Your task to perform on an android device: Go to internet settings Image 0: 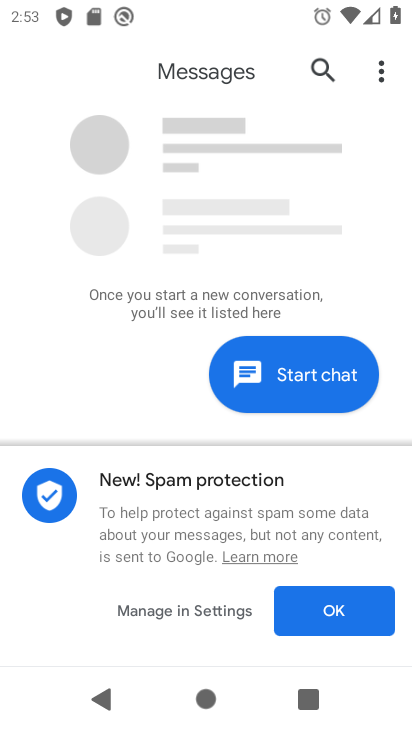
Step 0: press home button
Your task to perform on an android device: Go to internet settings Image 1: 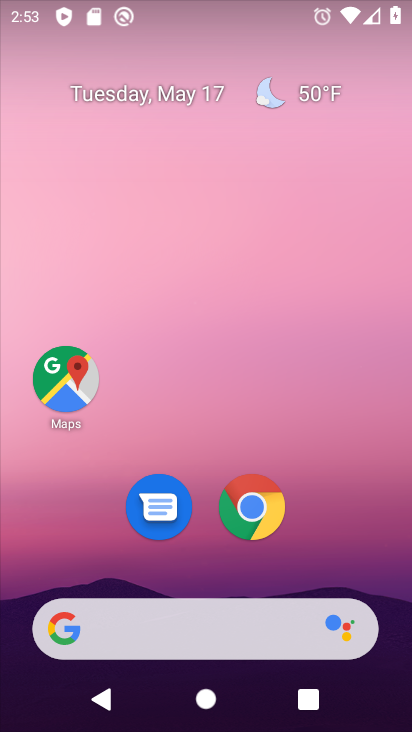
Step 1: drag from (377, 561) to (243, 59)
Your task to perform on an android device: Go to internet settings Image 2: 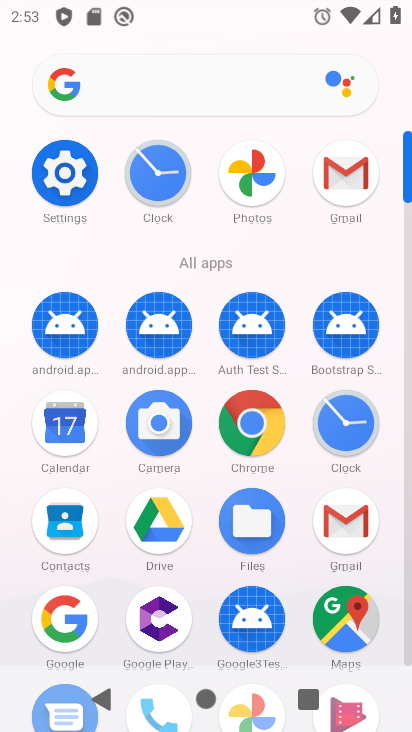
Step 2: click (68, 165)
Your task to perform on an android device: Go to internet settings Image 3: 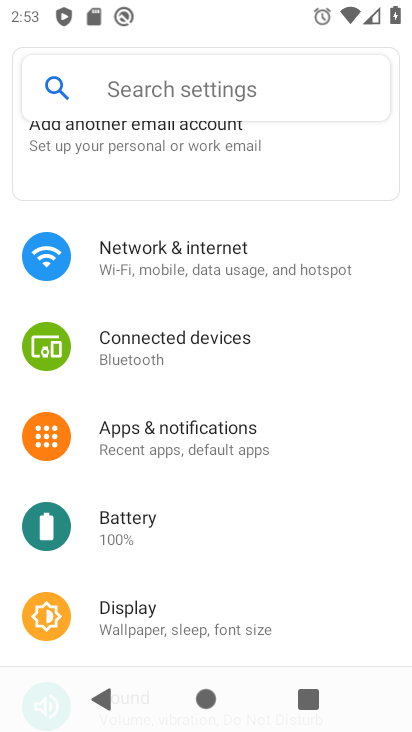
Step 3: click (198, 256)
Your task to perform on an android device: Go to internet settings Image 4: 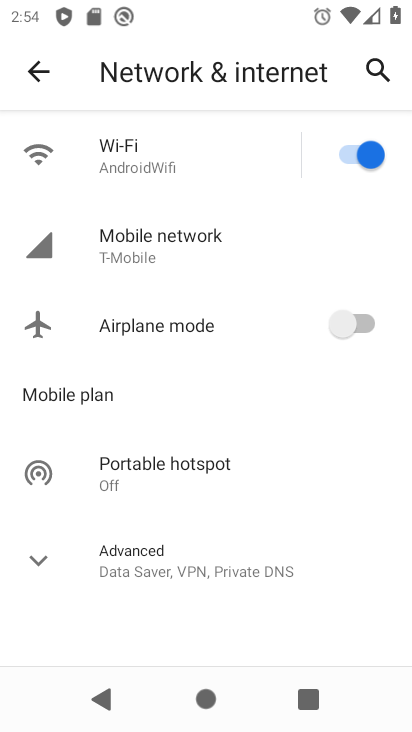
Step 4: task complete